Your task to perform on an android device: check battery use Image 0: 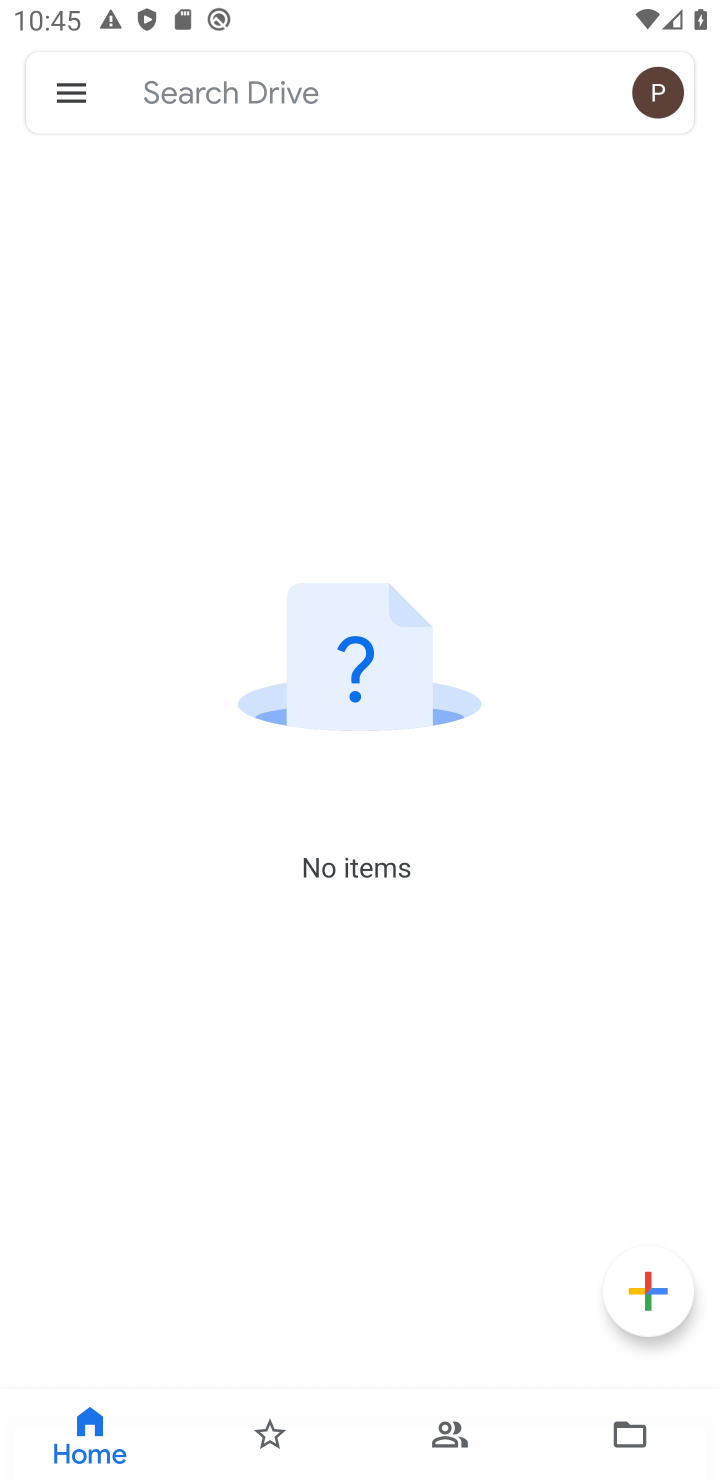
Step 0: press home button
Your task to perform on an android device: check battery use Image 1: 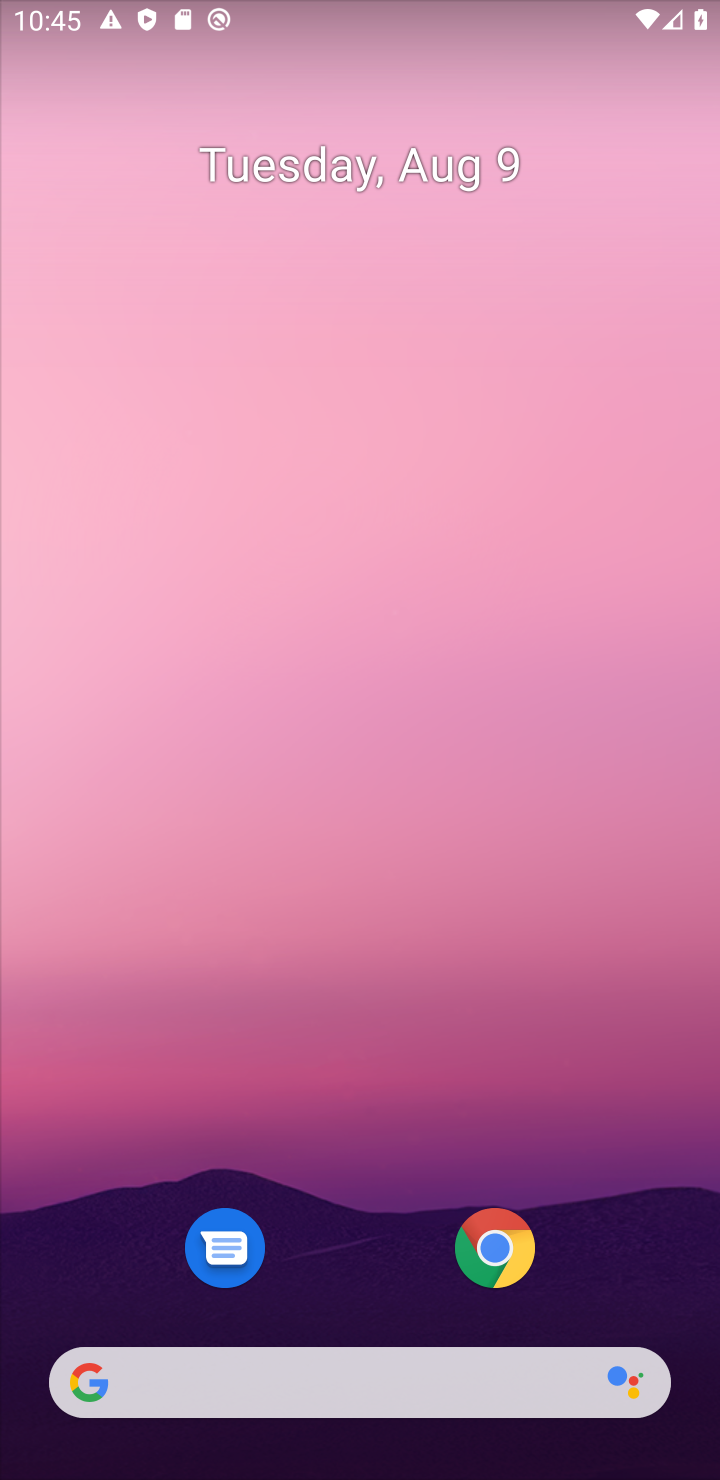
Step 1: drag from (353, 1090) to (498, 89)
Your task to perform on an android device: check battery use Image 2: 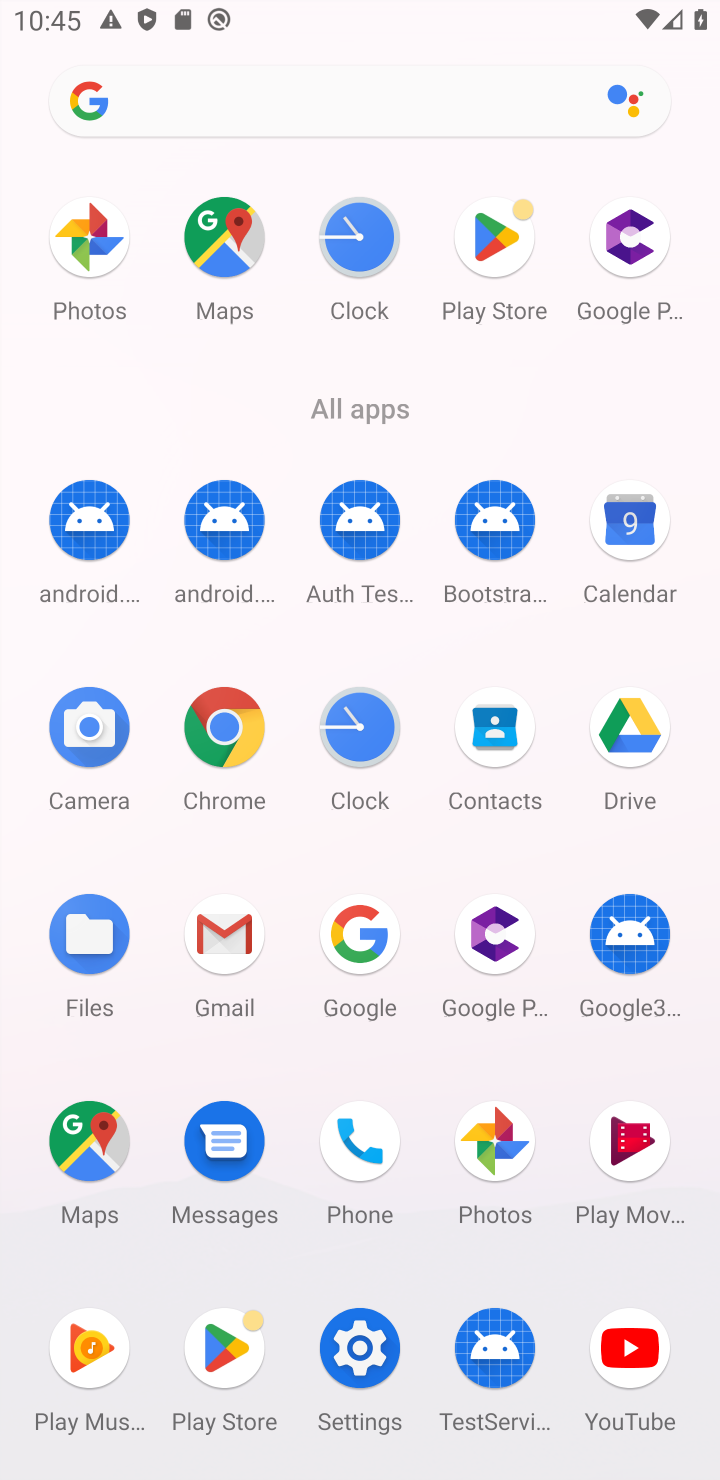
Step 2: click (345, 1347)
Your task to perform on an android device: check battery use Image 3: 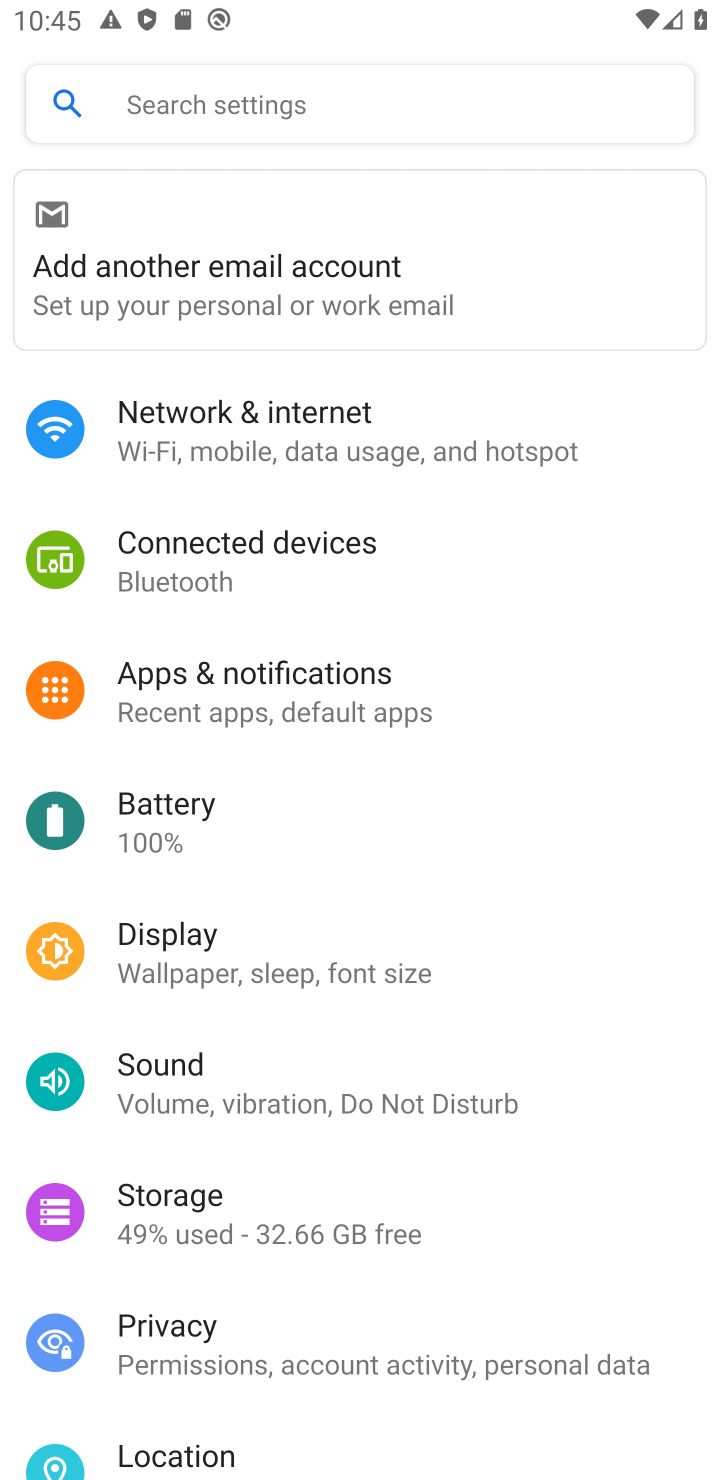
Step 3: task complete